Your task to perform on an android device: What is the recent news? Image 0: 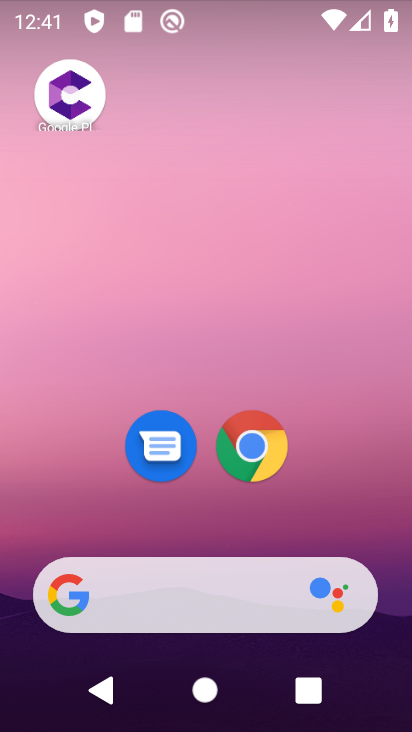
Step 0: drag from (223, 523) to (259, 115)
Your task to perform on an android device: What is the recent news? Image 1: 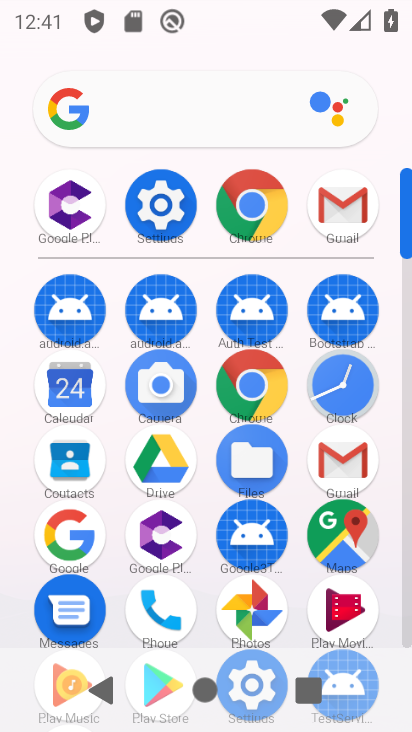
Step 1: click (85, 543)
Your task to perform on an android device: What is the recent news? Image 2: 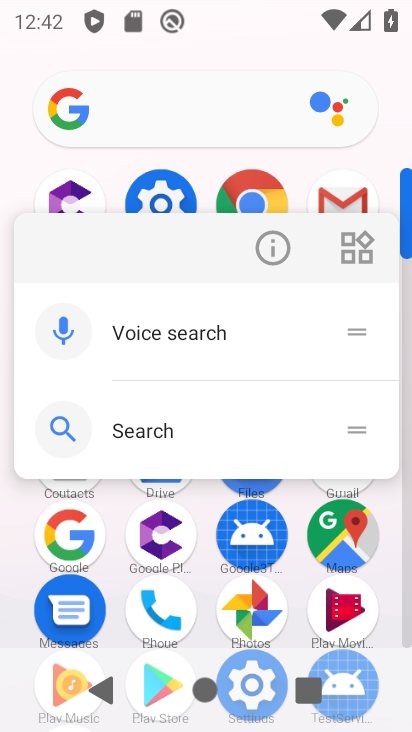
Step 2: click (85, 541)
Your task to perform on an android device: What is the recent news? Image 3: 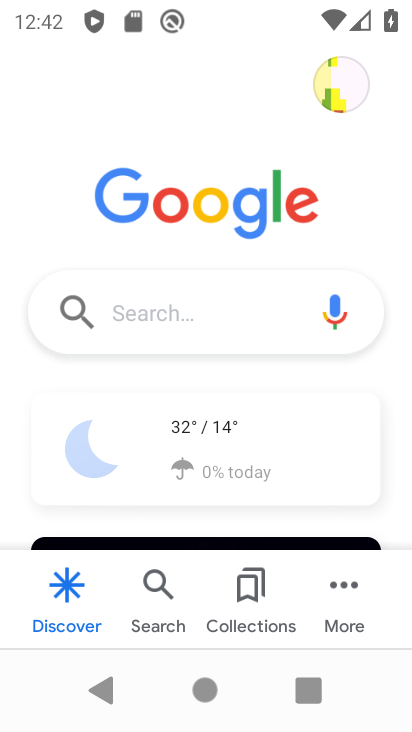
Step 3: click (193, 331)
Your task to perform on an android device: What is the recent news? Image 4: 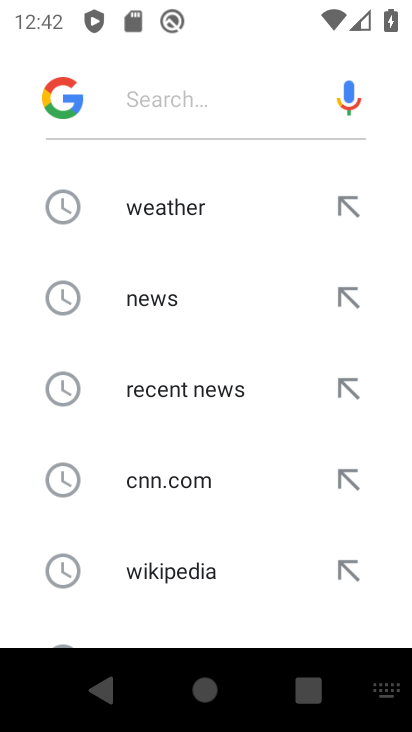
Step 4: click (213, 299)
Your task to perform on an android device: What is the recent news? Image 5: 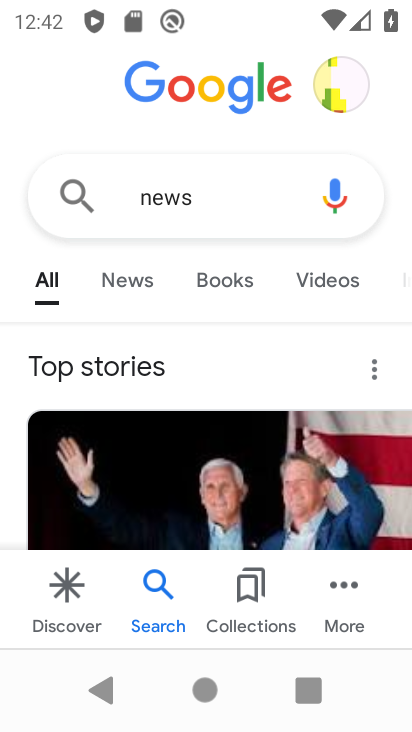
Step 5: click (127, 282)
Your task to perform on an android device: What is the recent news? Image 6: 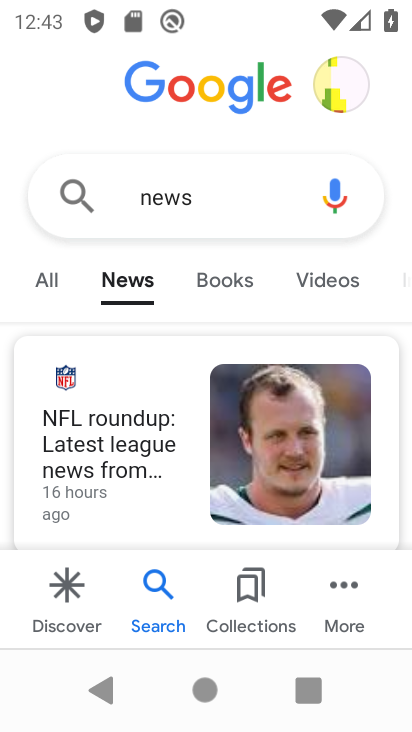
Step 6: task complete